Your task to perform on an android device: move an email to a new category in the gmail app Image 0: 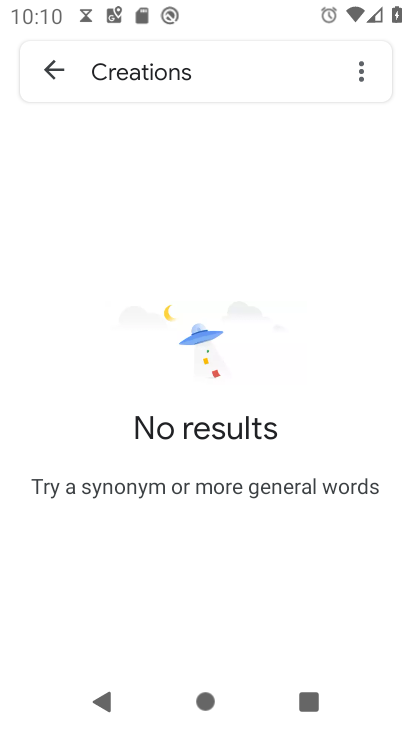
Step 0: press home button
Your task to perform on an android device: move an email to a new category in the gmail app Image 1: 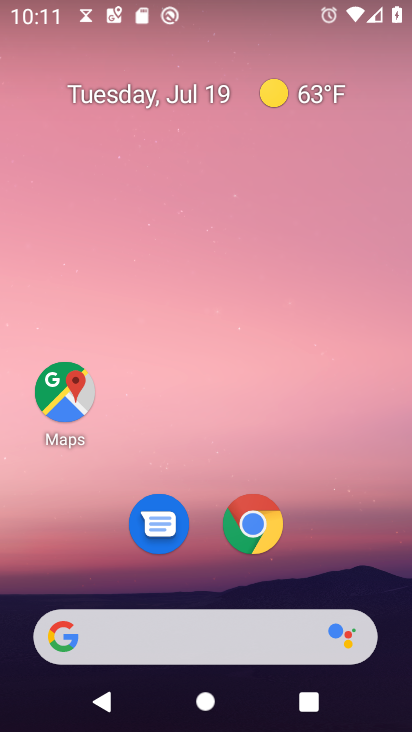
Step 1: drag from (242, 643) to (356, 212)
Your task to perform on an android device: move an email to a new category in the gmail app Image 2: 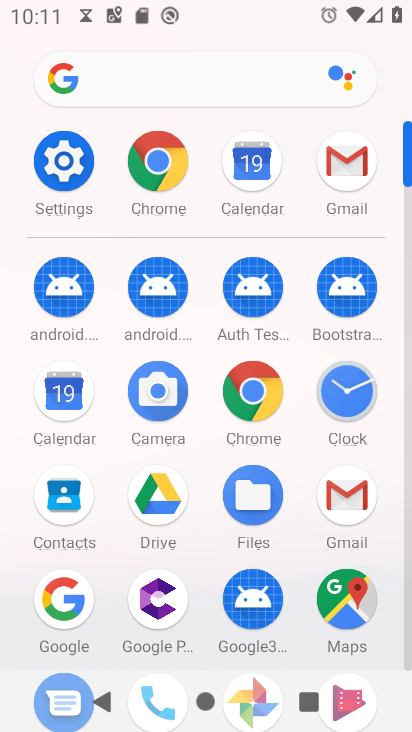
Step 2: click (340, 179)
Your task to perform on an android device: move an email to a new category in the gmail app Image 3: 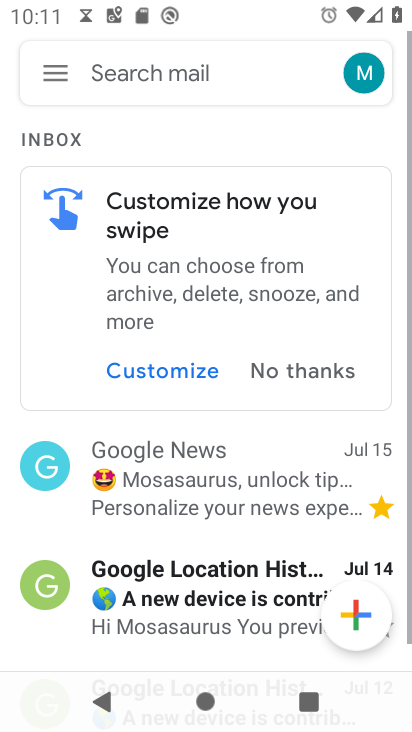
Step 3: drag from (194, 450) to (274, 266)
Your task to perform on an android device: move an email to a new category in the gmail app Image 4: 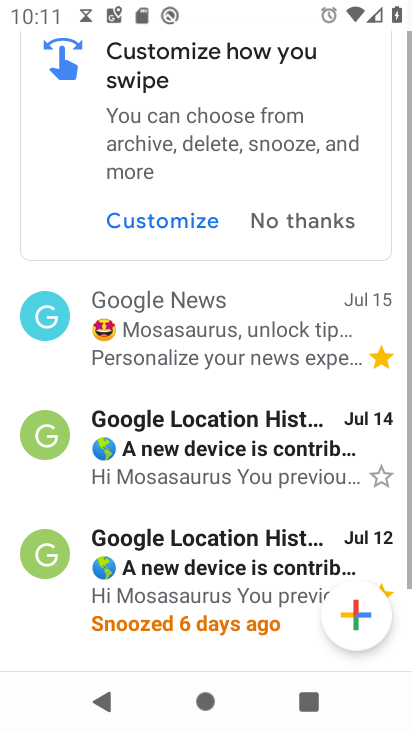
Step 4: click (50, 322)
Your task to perform on an android device: move an email to a new category in the gmail app Image 5: 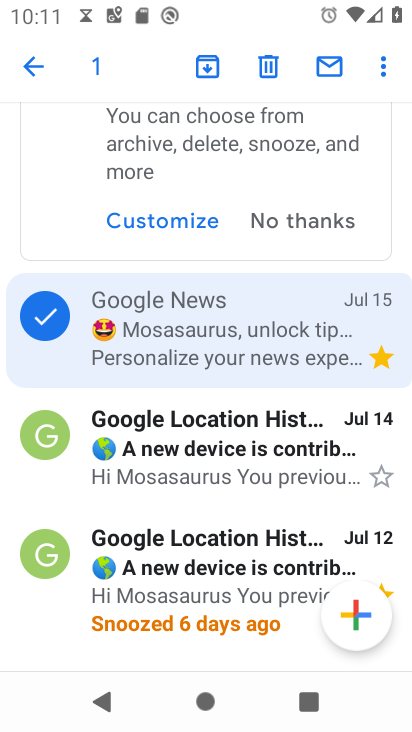
Step 5: click (383, 58)
Your task to perform on an android device: move an email to a new category in the gmail app Image 6: 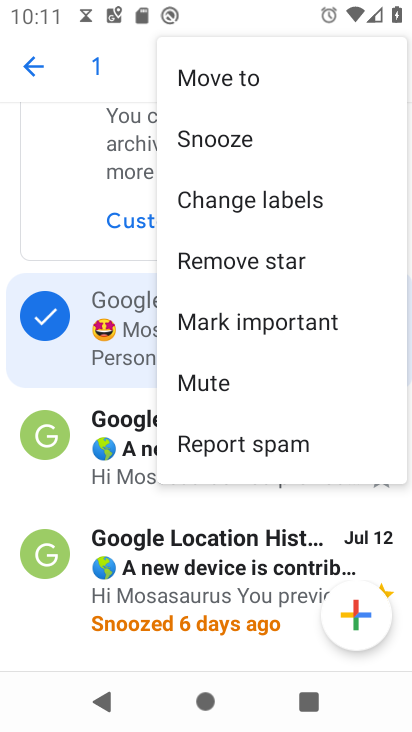
Step 6: click (230, 78)
Your task to perform on an android device: move an email to a new category in the gmail app Image 7: 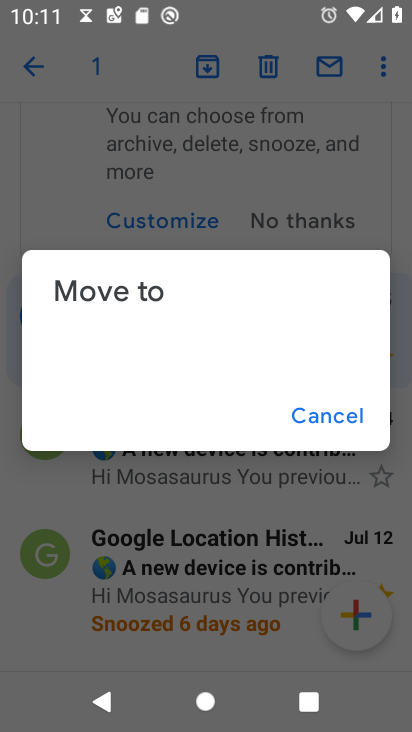
Step 7: click (175, 336)
Your task to perform on an android device: move an email to a new category in the gmail app Image 8: 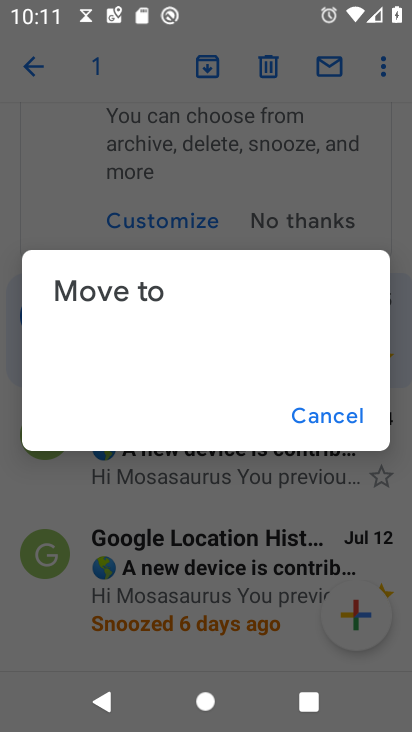
Step 8: click (307, 412)
Your task to perform on an android device: move an email to a new category in the gmail app Image 9: 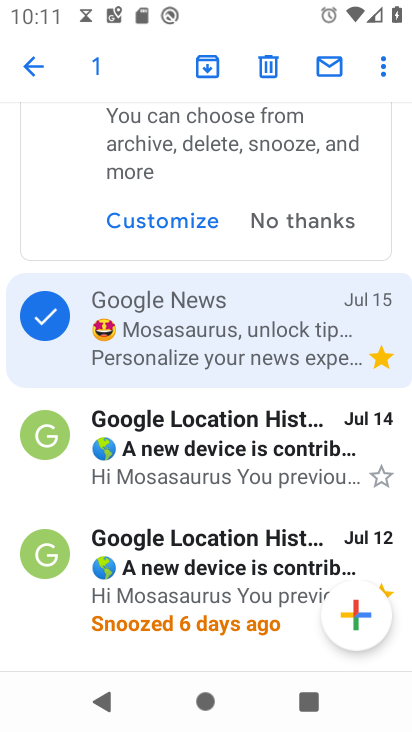
Step 9: task complete